Your task to perform on an android device: open app "Adobe Express: Graphic Design" (install if not already installed) and go to login screen Image 0: 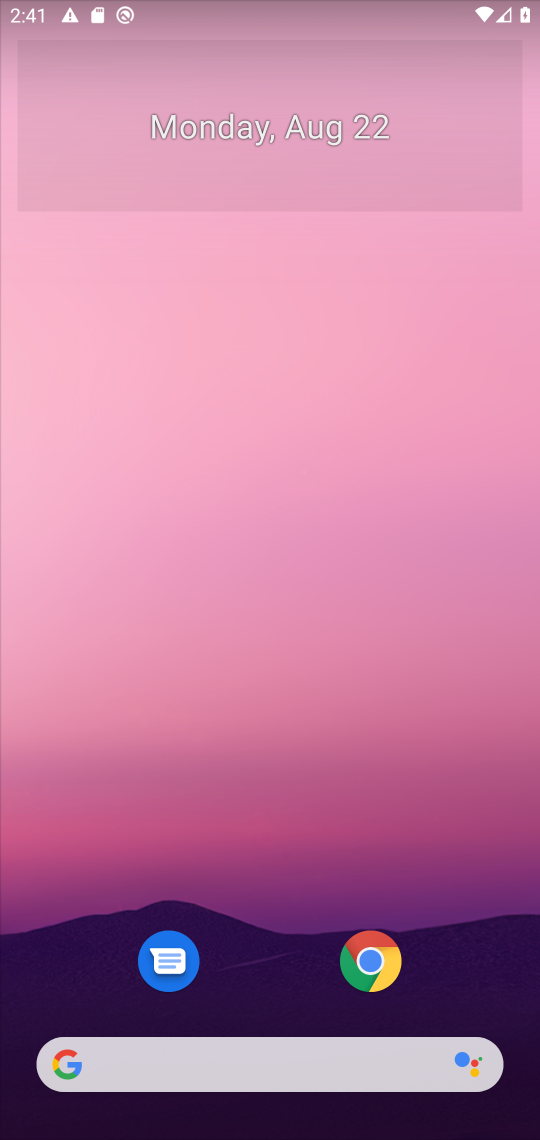
Step 0: press home button
Your task to perform on an android device: open app "Adobe Express: Graphic Design" (install if not already installed) and go to login screen Image 1: 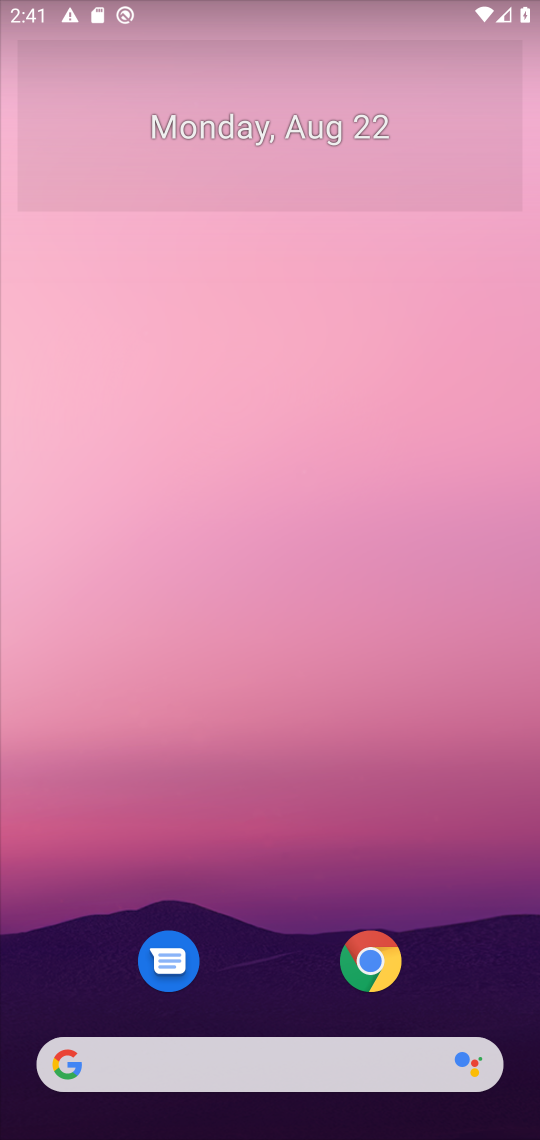
Step 1: drag from (477, 942) to (485, 164)
Your task to perform on an android device: open app "Adobe Express: Graphic Design" (install if not already installed) and go to login screen Image 2: 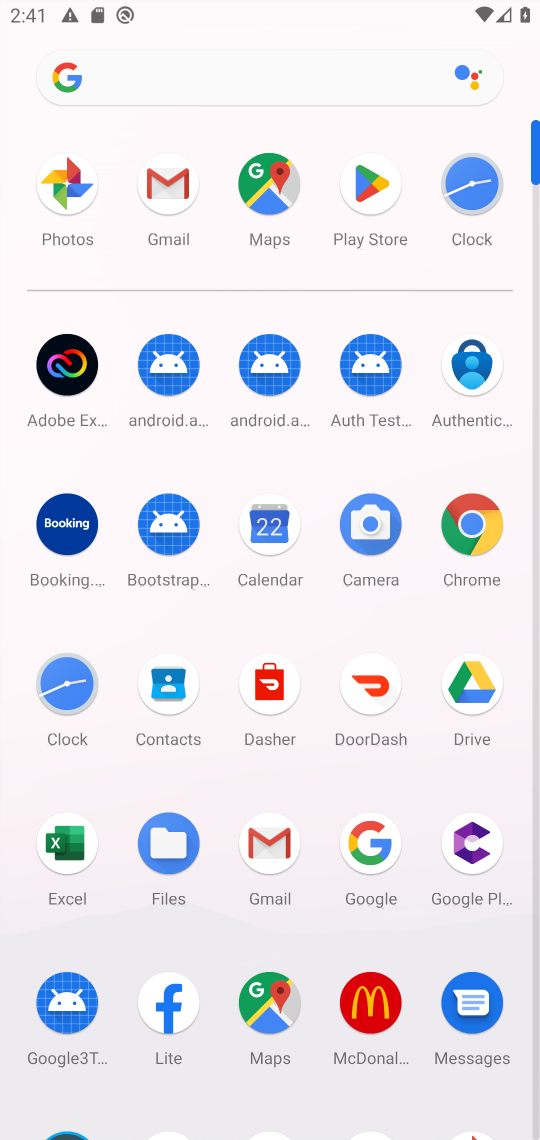
Step 2: click (374, 184)
Your task to perform on an android device: open app "Adobe Express: Graphic Design" (install if not already installed) and go to login screen Image 3: 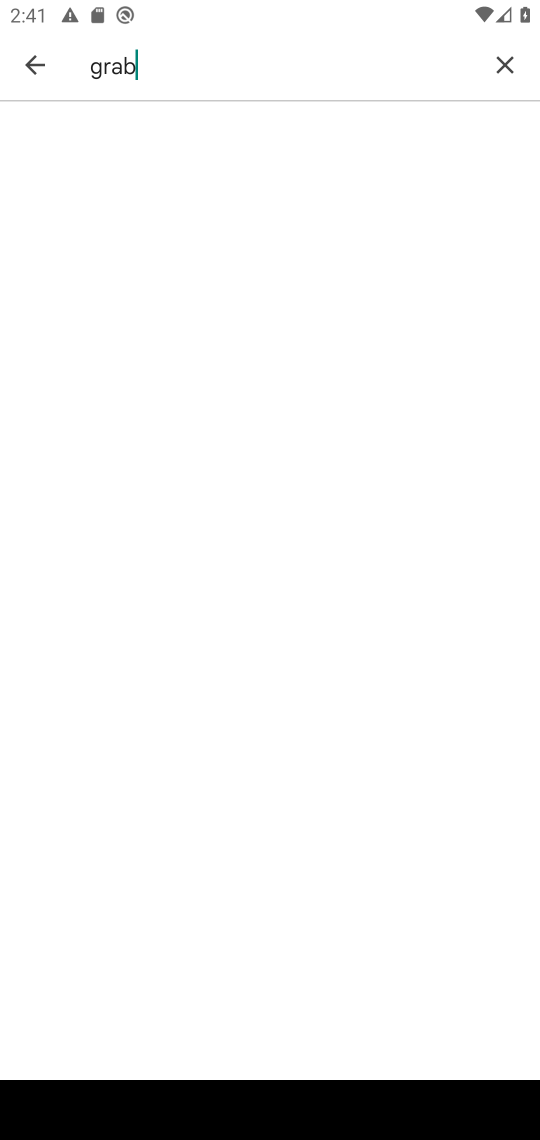
Step 3: press back button
Your task to perform on an android device: open app "Adobe Express: Graphic Design" (install if not already installed) and go to login screen Image 4: 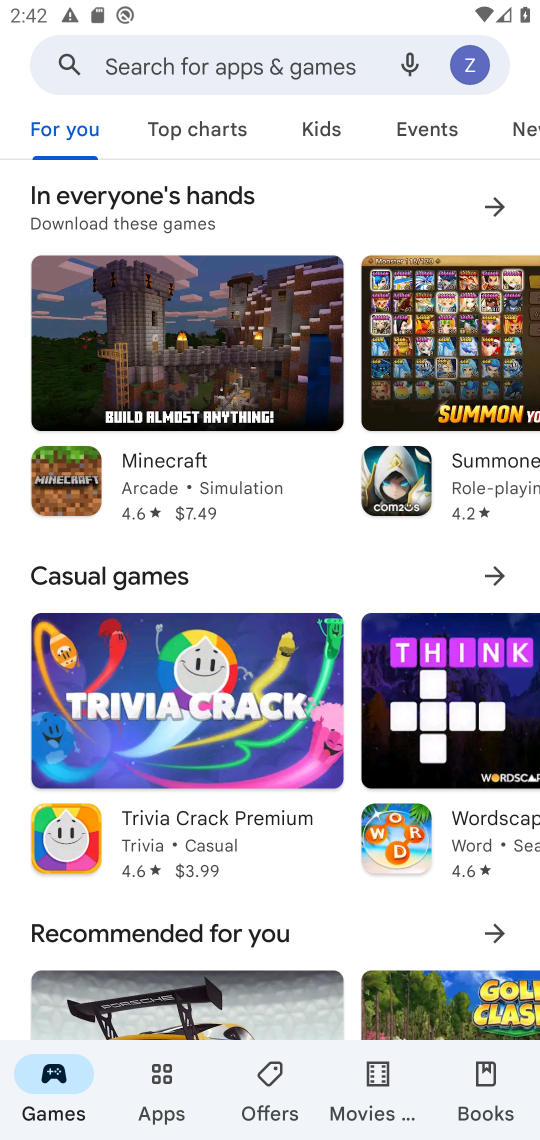
Step 4: click (303, 66)
Your task to perform on an android device: open app "Adobe Express: Graphic Design" (install if not already installed) and go to login screen Image 5: 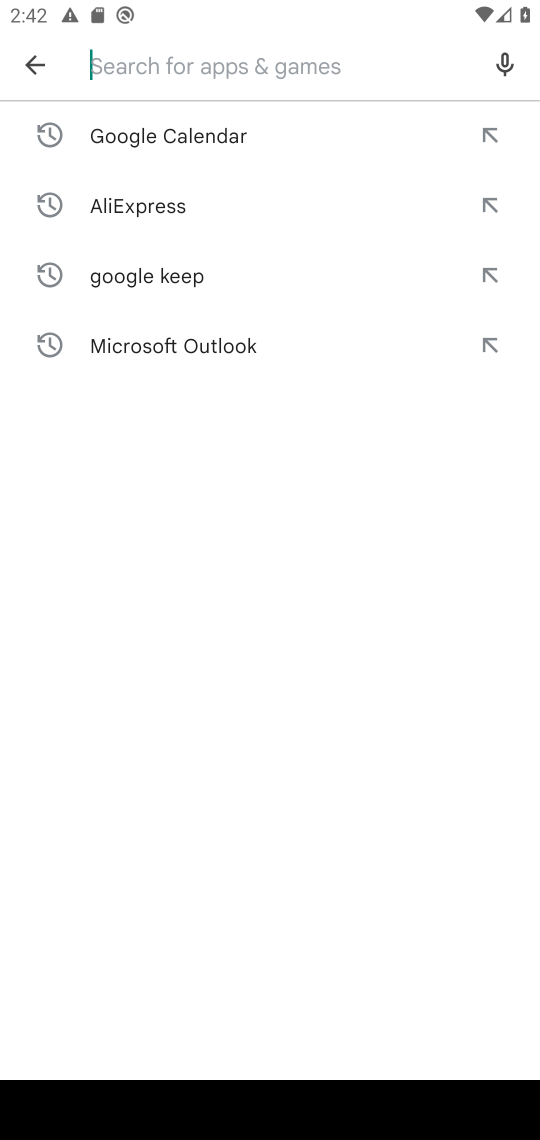
Step 5: type "Adobe Express: Graphic Design"
Your task to perform on an android device: open app "Adobe Express: Graphic Design" (install if not already installed) and go to login screen Image 6: 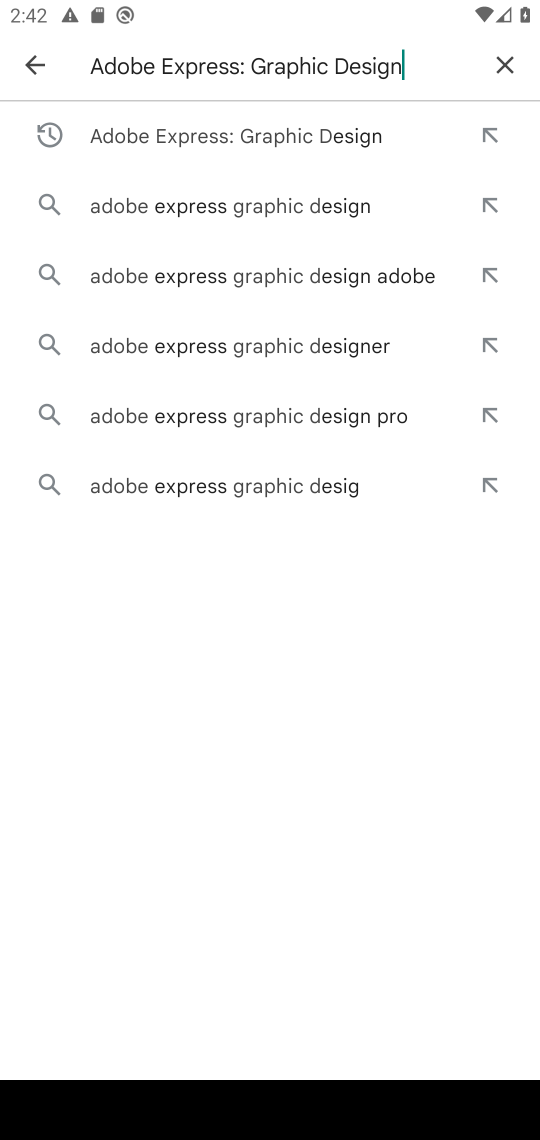
Step 6: press enter
Your task to perform on an android device: open app "Adobe Express: Graphic Design" (install if not already installed) and go to login screen Image 7: 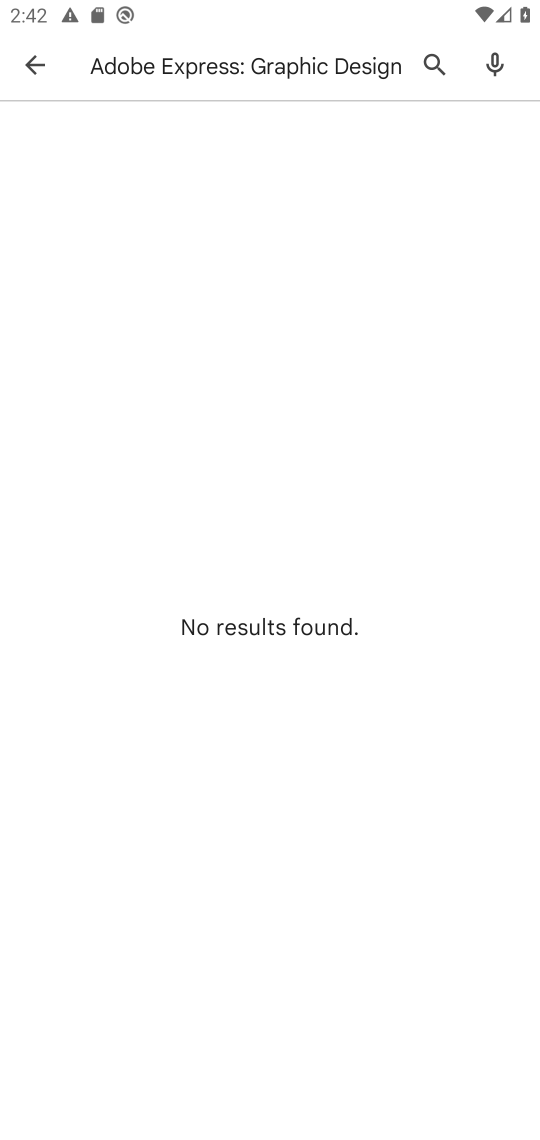
Step 7: task complete